Your task to perform on an android device: Go to Android settings Image 0: 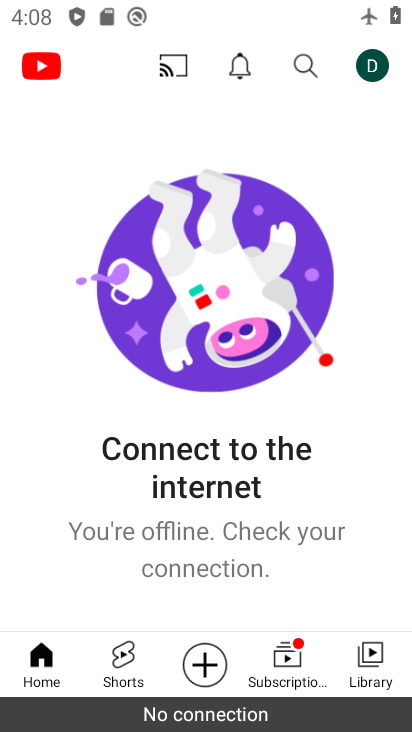
Step 0: press home button
Your task to perform on an android device: Go to Android settings Image 1: 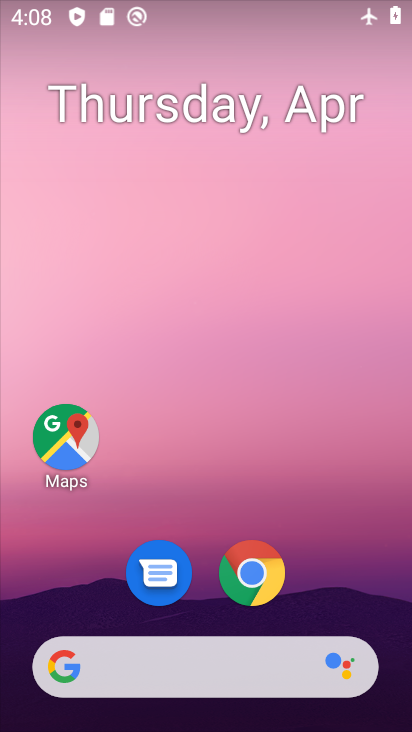
Step 1: drag from (322, 605) to (228, 85)
Your task to perform on an android device: Go to Android settings Image 2: 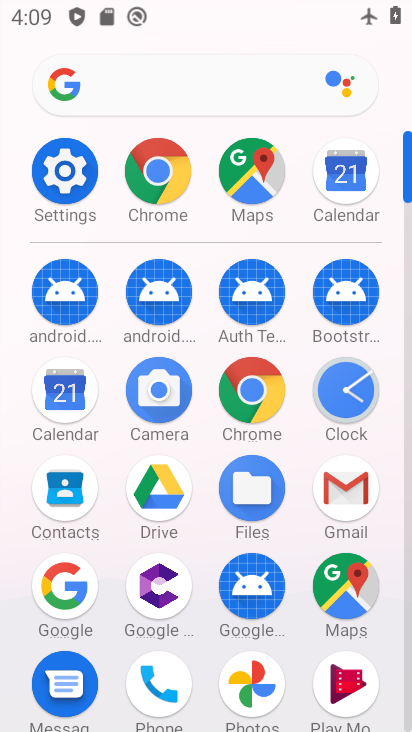
Step 2: click (60, 156)
Your task to perform on an android device: Go to Android settings Image 3: 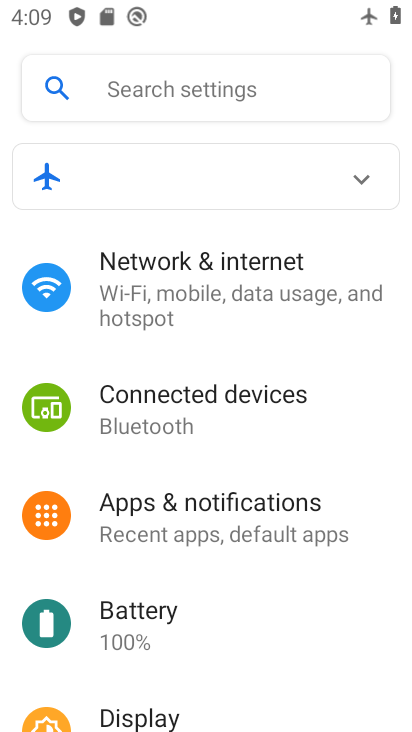
Step 3: drag from (195, 635) to (174, 67)
Your task to perform on an android device: Go to Android settings Image 4: 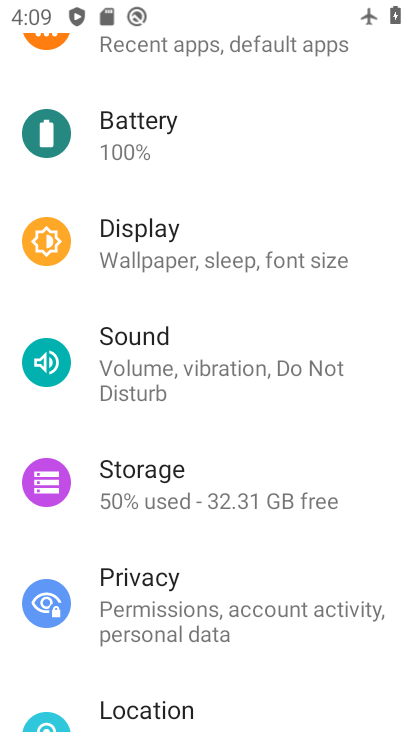
Step 4: drag from (159, 606) to (225, 96)
Your task to perform on an android device: Go to Android settings Image 5: 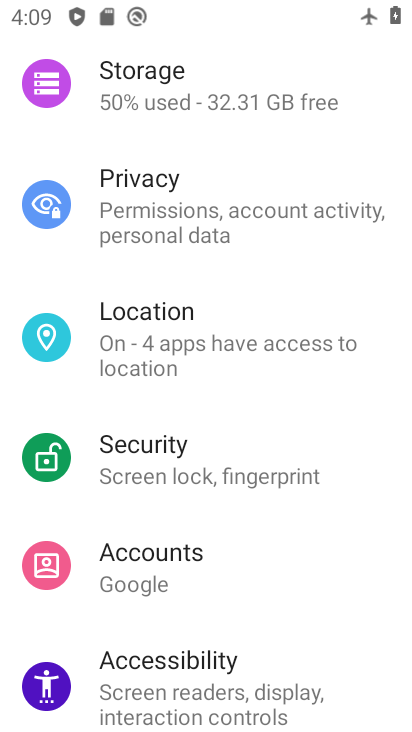
Step 5: drag from (195, 699) to (281, 127)
Your task to perform on an android device: Go to Android settings Image 6: 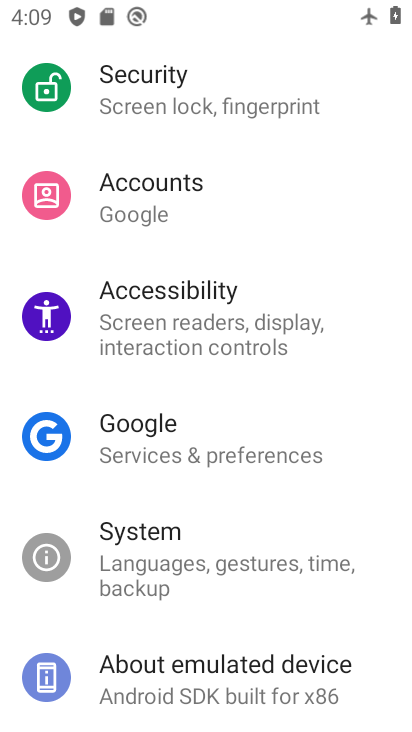
Step 6: click (237, 652)
Your task to perform on an android device: Go to Android settings Image 7: 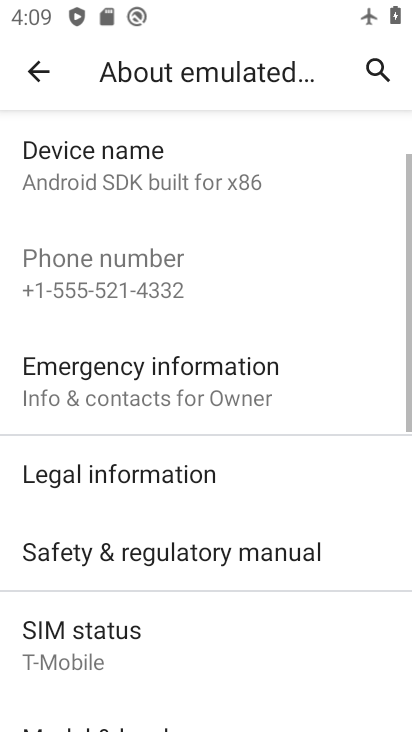
Step 7: click (308, 116)
Your task to perform on an android device: Go to Android settings Image 8: 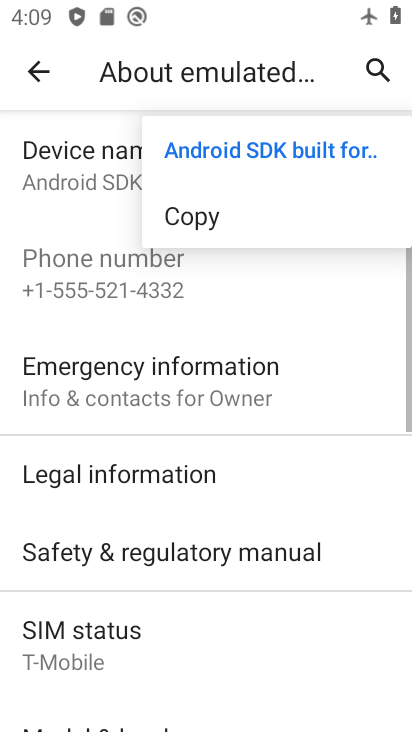
Step 8: drag from (203, 590) to (276, 223)
Your task to perform on an android device: Go to Android settings Image 9: 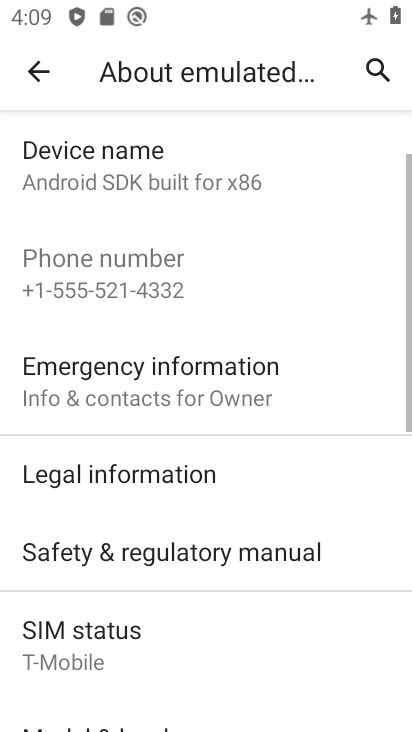
Step 9: drag from (156, 535) to (196, 163)
Your task to perform on an android device: Go to Android settings Image 10: 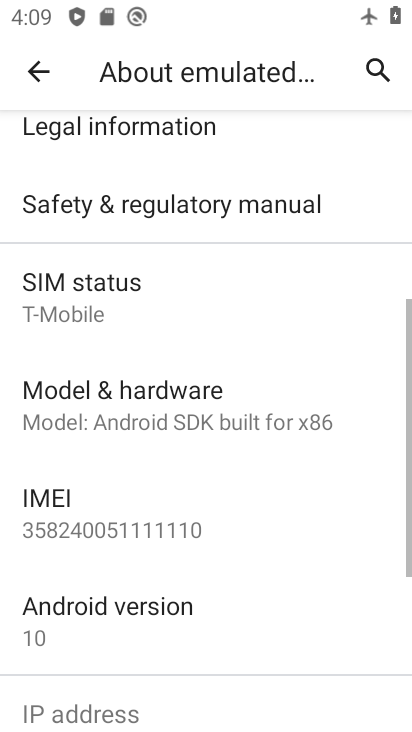
Step 10: click (138, 611)
Your task to perform on an android device: Go to Android settings Image 11: 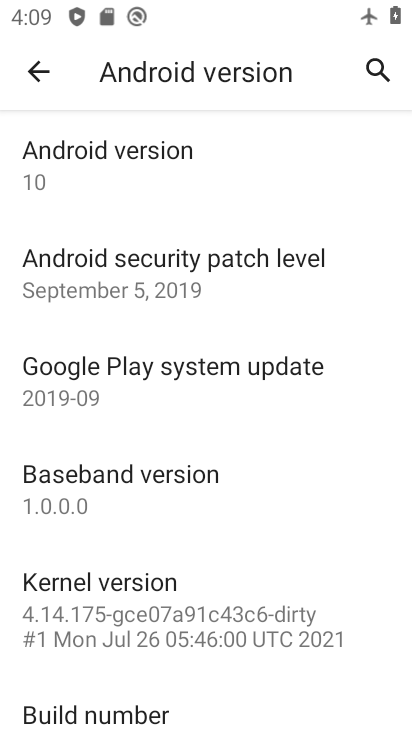
Step 11: click (314, 169)
Your task to perform on an android device: Go to Android settings Image 12: 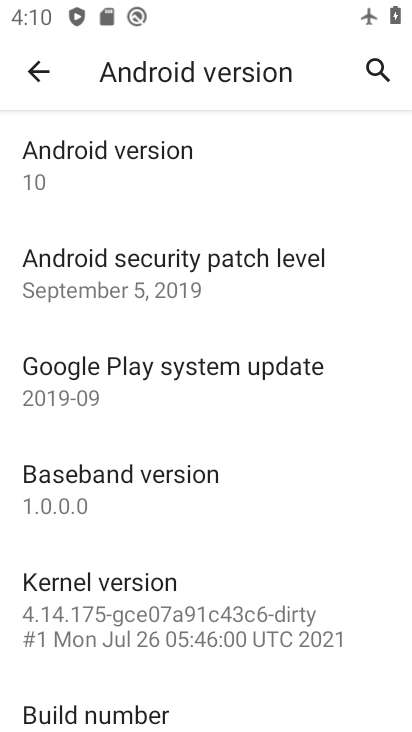
Step 12: task complete